Your task to perform on an android device: Go to Wikipedia Image 0: 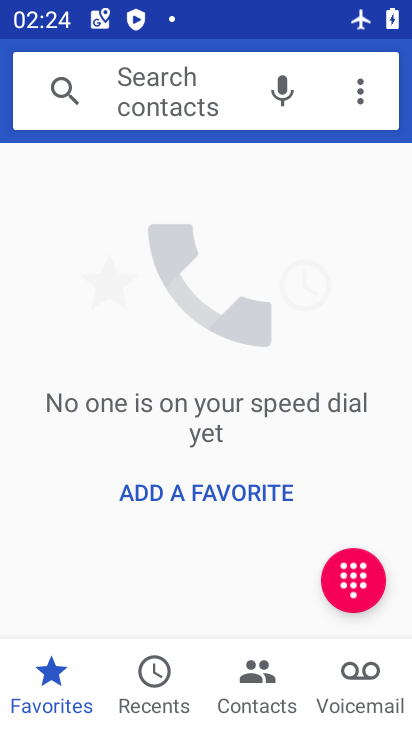
Step 0: press home button
Your task to perform on an android device: Go to Wikipedia Image 1: 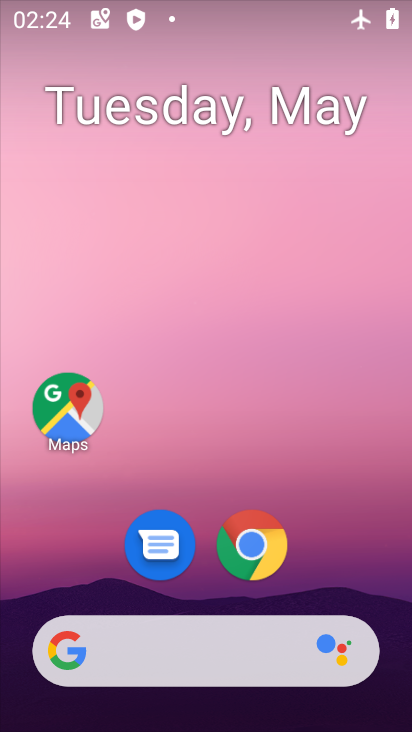
Step 1: click (252, 549)
Your task to perform on an android device: Go to Wikipedia Image 2: 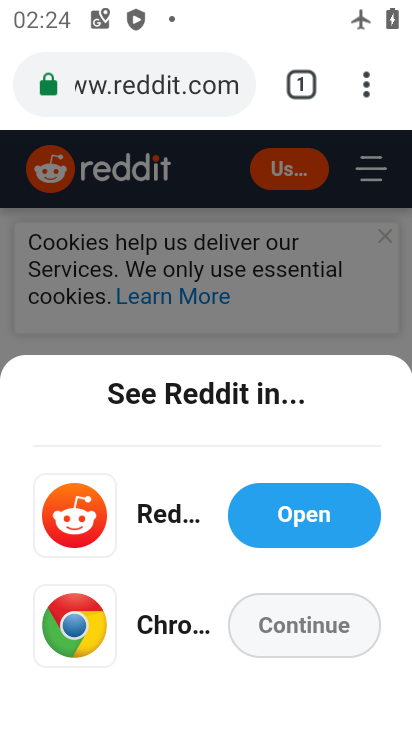
Step 2: click (191, 82)
Your task to perform on an android device: Go to Wikipedia Image 3: 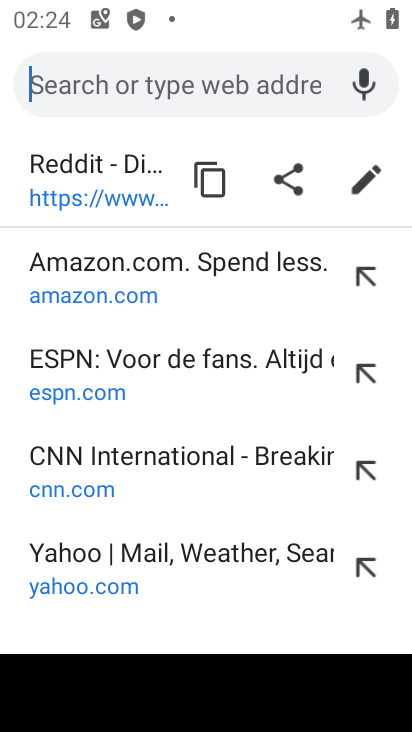
Step 3: type "wikipedia"
Your task to perform on an android device: Go to Wikipedia Image 4: 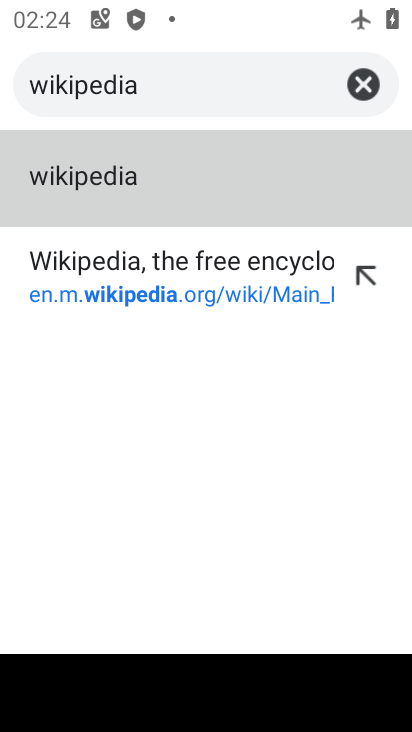
Step 4: click (97, 190)
Your task to perform on an android device: Go to Wikipedia Image 5: 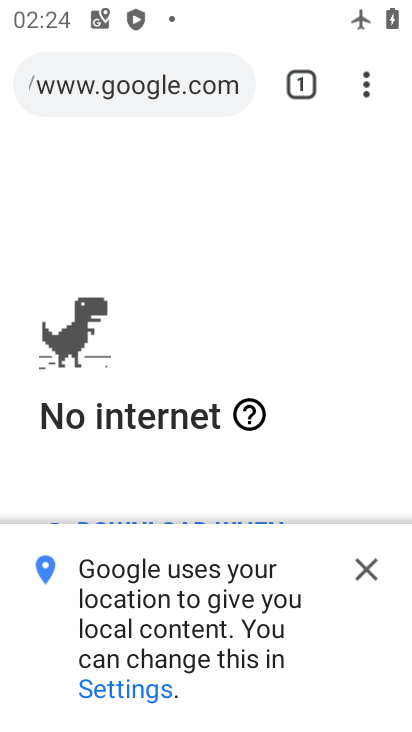
Step 5: click (363, 564)
Your task to perform on an android device: Go to Wikipedia Image 6: 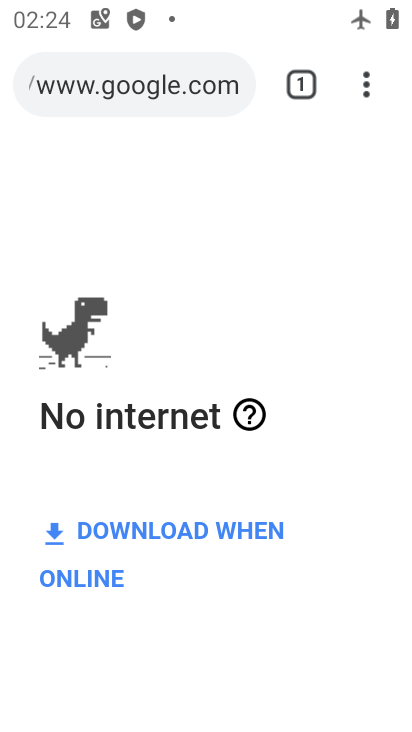
Step 6: task complete